Your task to perform on an android device: Open settings Image 0: 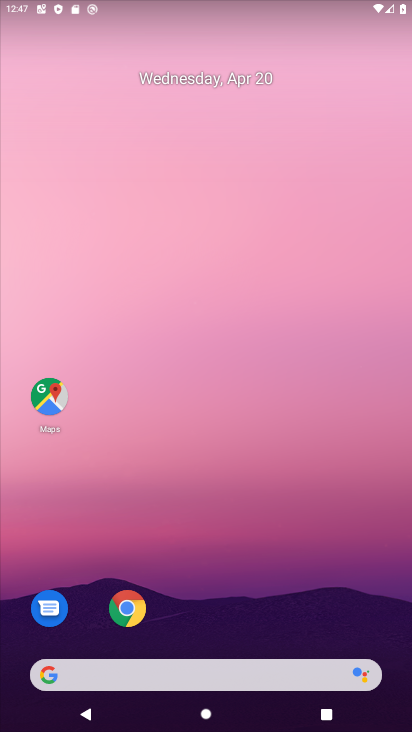
Step 0: drag from (363, 561) to (310, 90)
Your task to perform on an android device: Open settings Image 1: 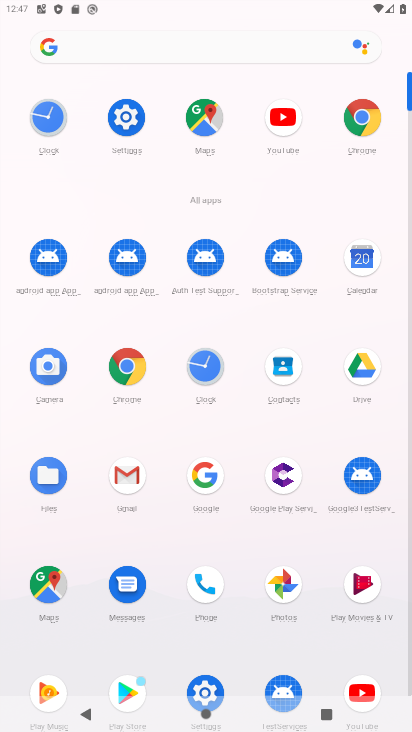
Step 1: click (117, 135)
Your task to perform on an android device: Open settings Image 2: 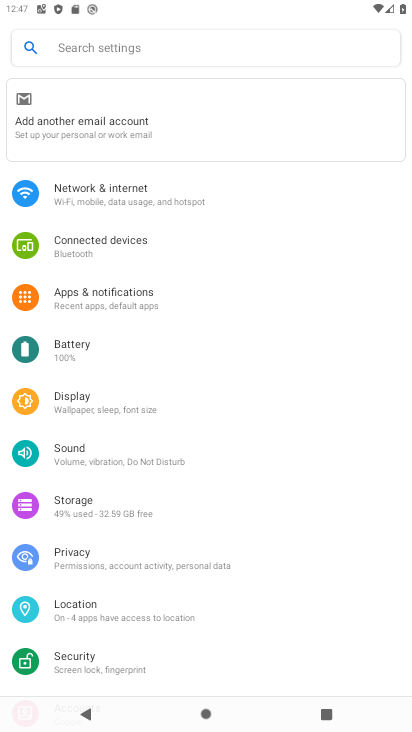
Step 2: task complete